Your task to perform on an android device: Open ESPN.com Image 0: 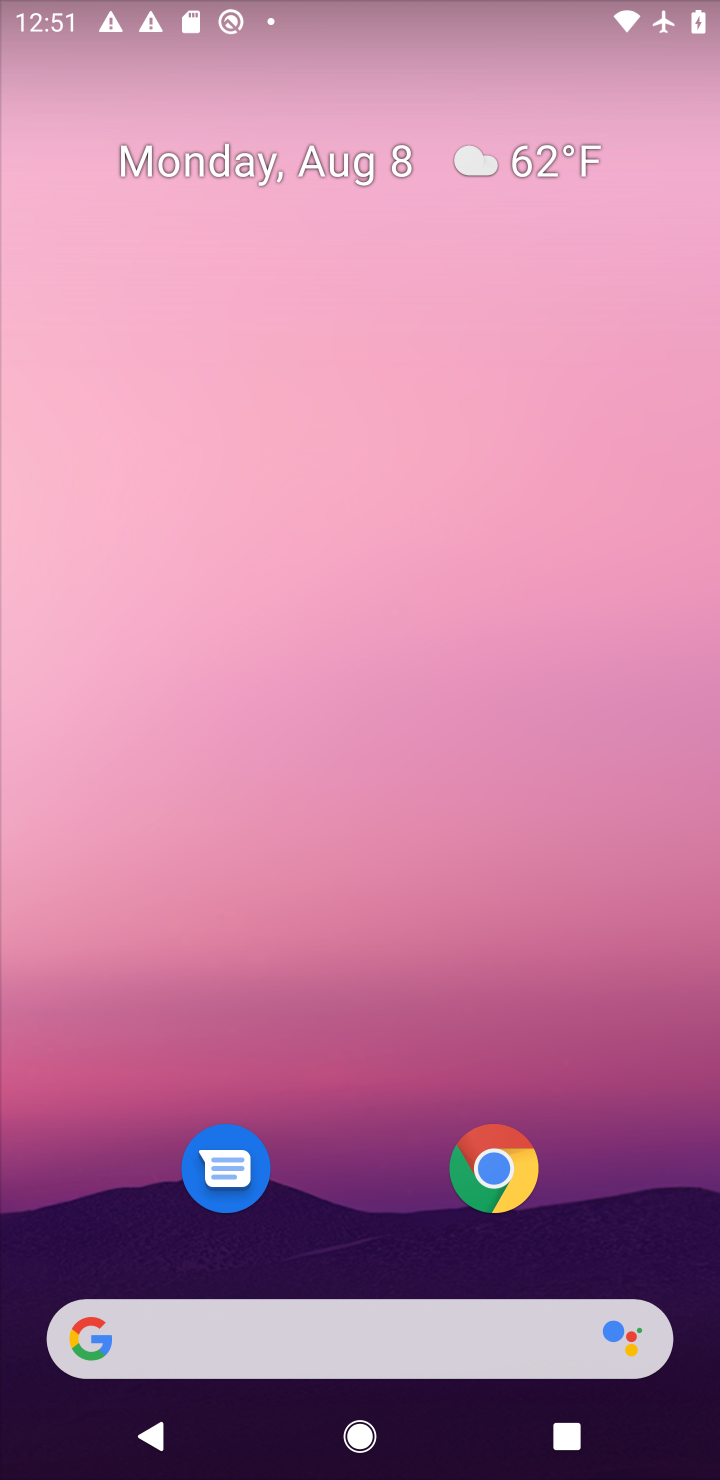
Step 0: drag from (372, 1280) to (330, 5)
Your task to perform on an android device: Open ESPN.com Image 1: 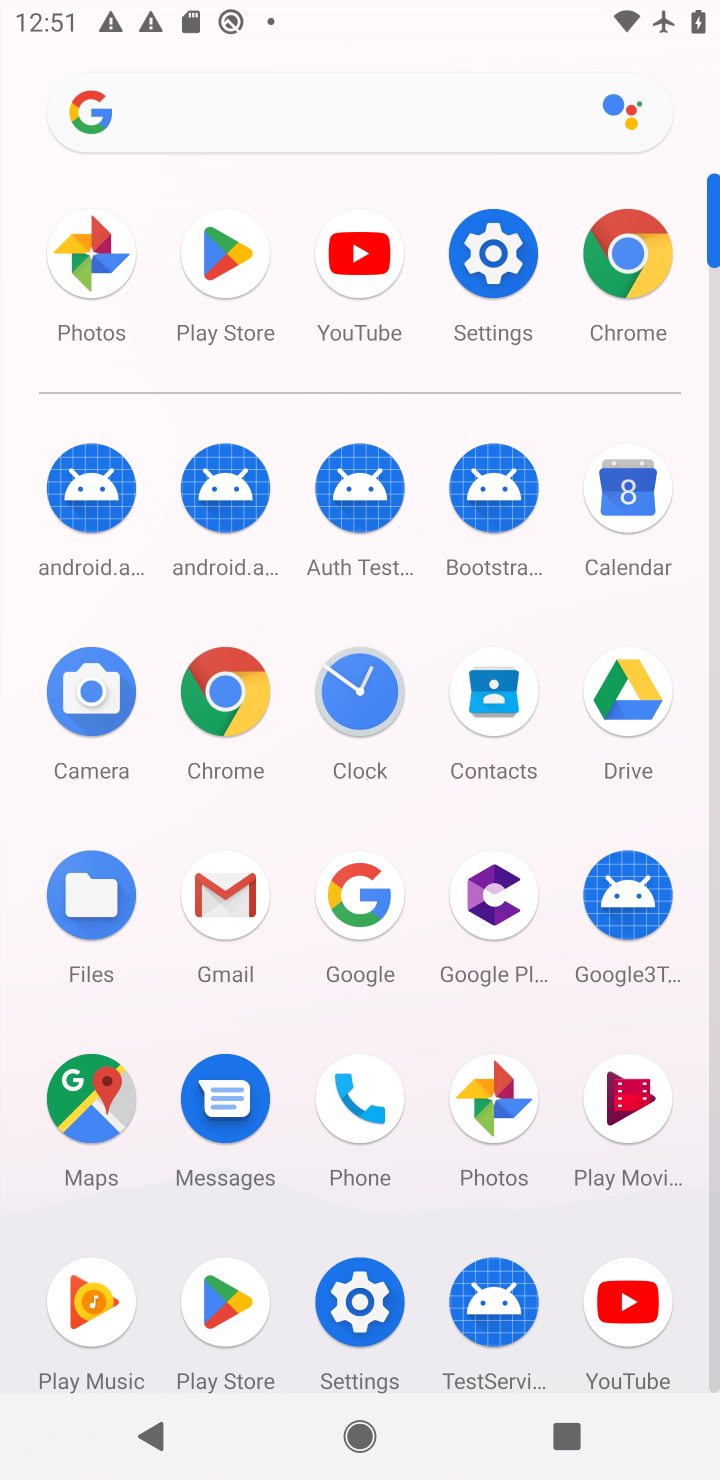
Step 1: click (471, 132)
Your task to perform on an android device: Open ESPN.com Image 2: 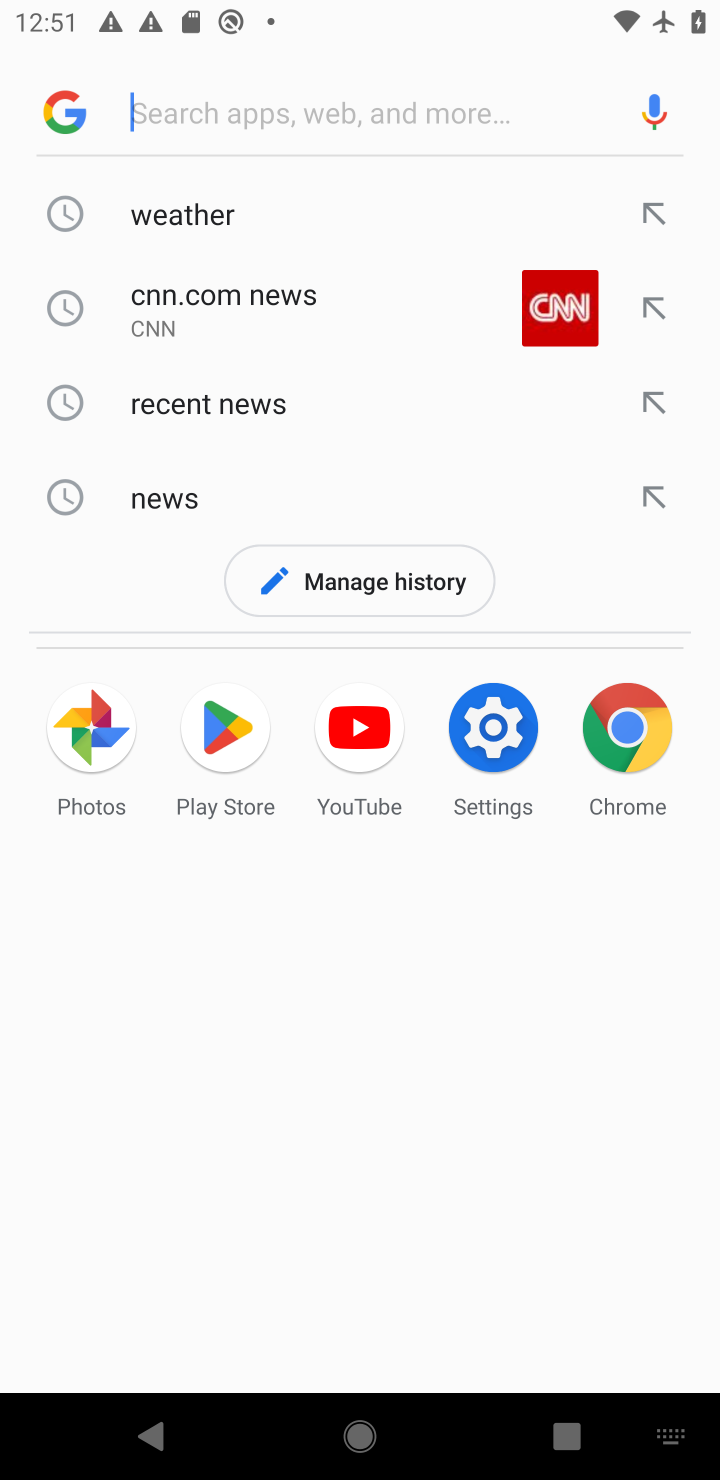
Step 2: type "espn.com"
Your task to perform on an android device: Open ESPN.com Image 3: 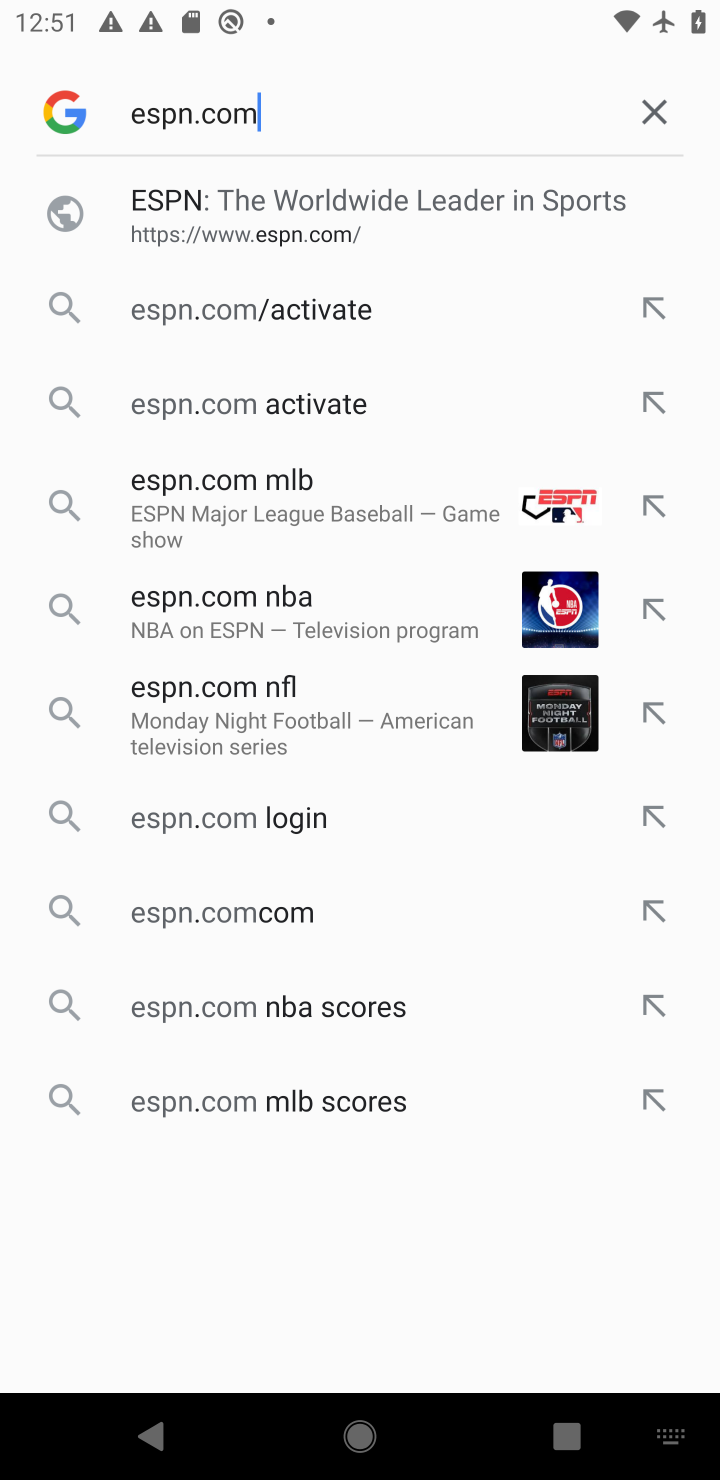
Step 3: click (343, 191)
Your task to perform on an android device: Open ESPN.com Image 4: 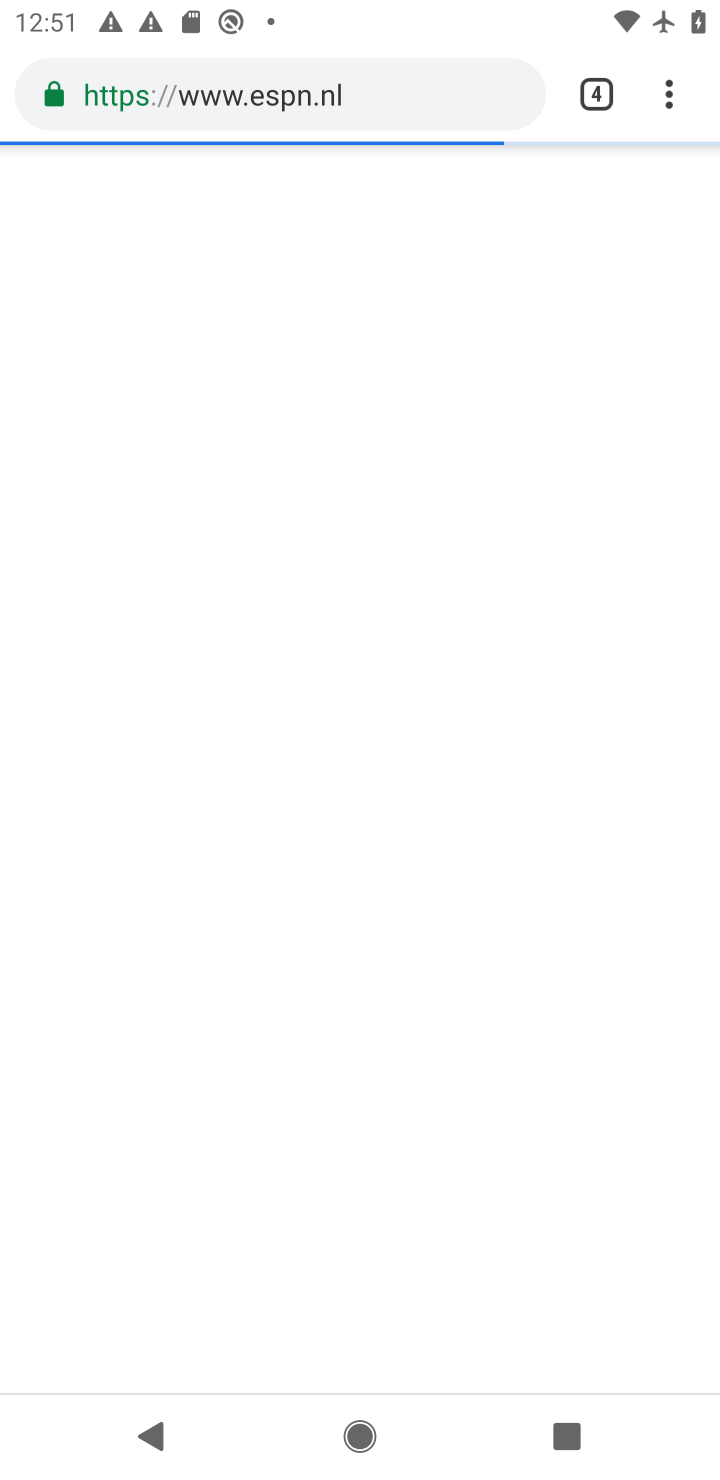
Step 4: task complete